Your task to perform on an android device: toggle location history Image 0: 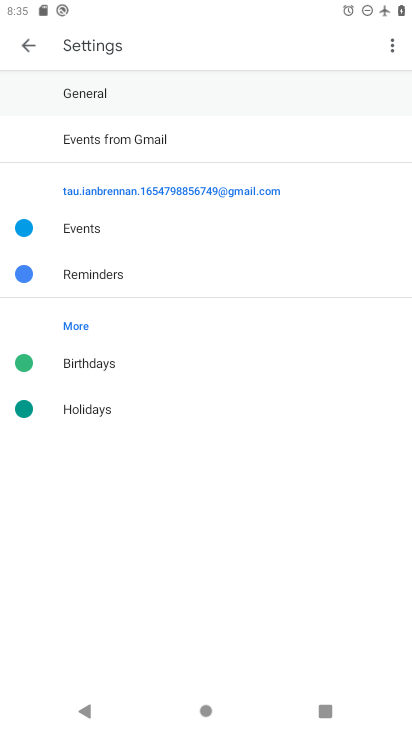
Step 0: press home button
Your task to perform on an android device: toggle location history Image 1: 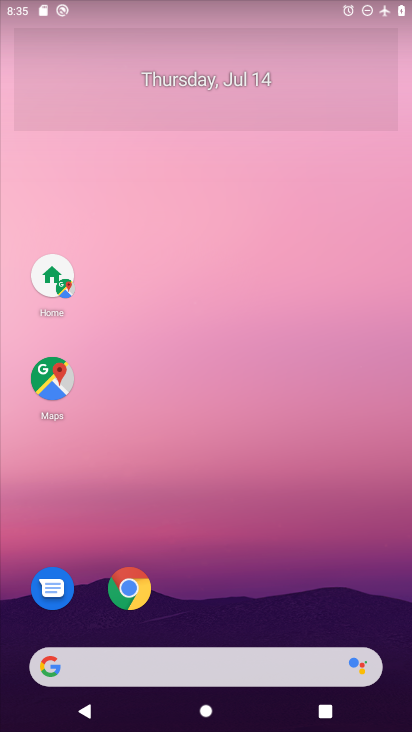
Step 1: drag from (41, 698) to (357, 196)
Your task to perform on an android device: toggle location history Image 2: 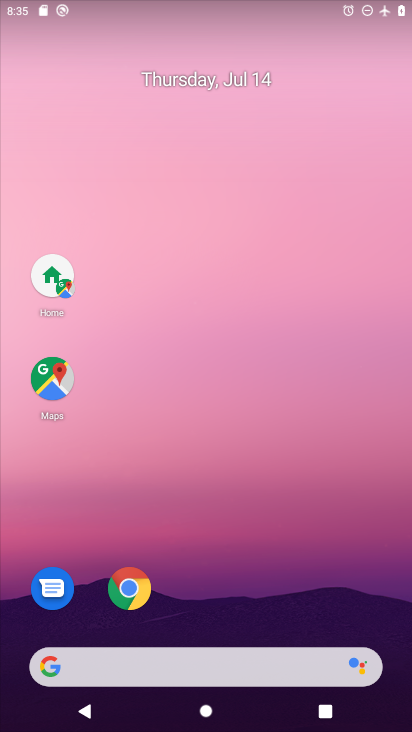
Step 2: drag from (13, 716) to (151, 14)
Your task to perform on an android device: toggle location history Image 3: 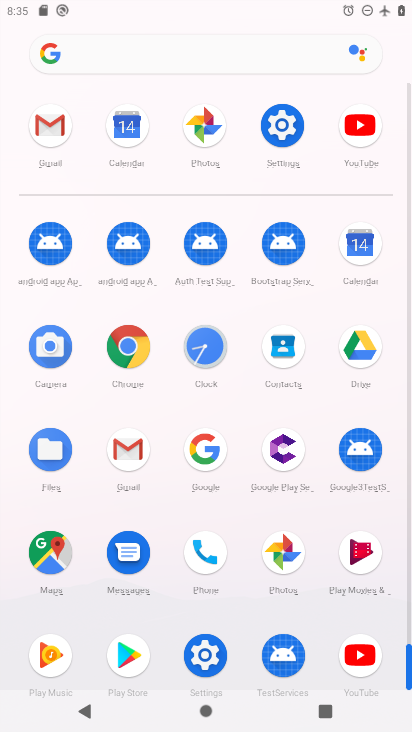
Step 3: click (217, 653)
Your task to perform on an android device: toggle location history Image 4: 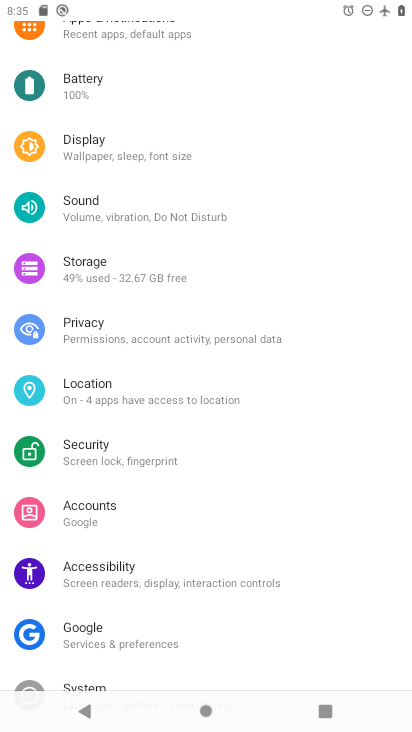
Step 4: click (108, 394)
Your task to perform on an android device: toggle location history Image 5: 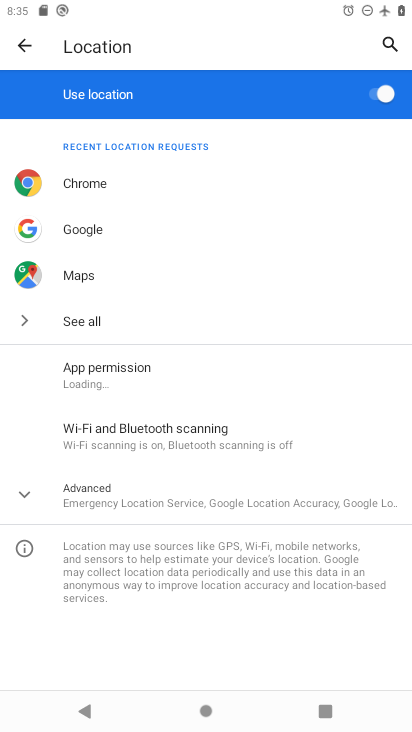
Step 5: click (99, 489)
Your task to perform on an android device: toggle location history Image 6: 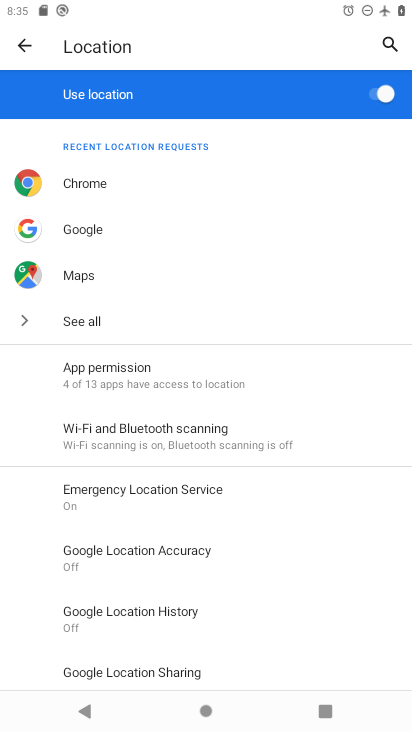
Step 6: click (164, 629)
Your task to perform on an android device: toggle location history Image 7: 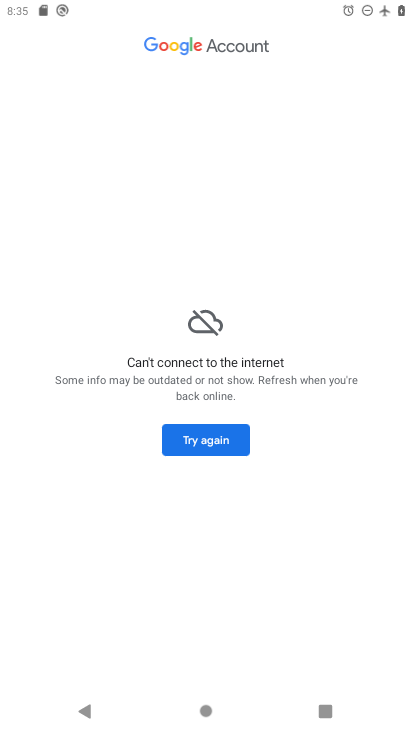
Step 7: drag from (337, 12) to (255, 535)
Your task to perform on an android device: toggle location history Image 8: 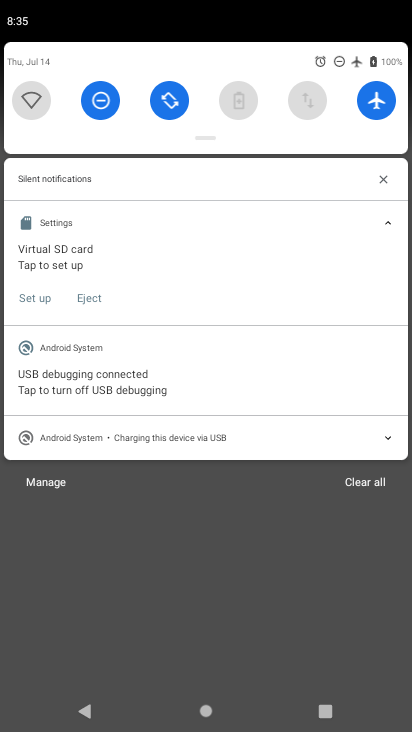
Step 8: click (376, 104)
Your task to perform on an android device: toggle location history Image 9: 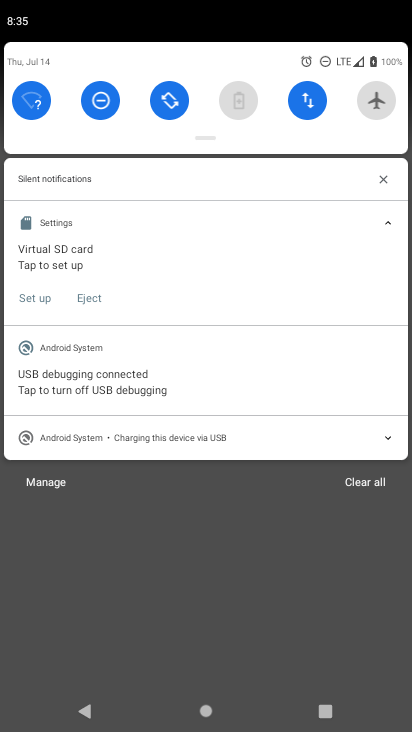
Step 9: click (310, 584)
Your task to perform on an android device: toggle location history Image 10: 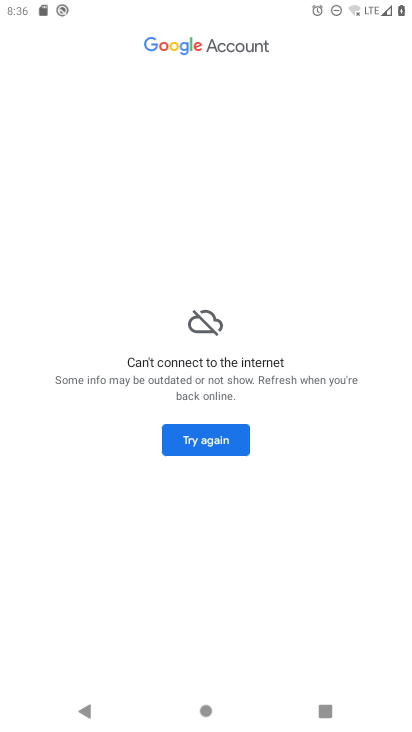
Step 10: click (217, 444)
Your task to perform on an android device: toggle location history Image 11: 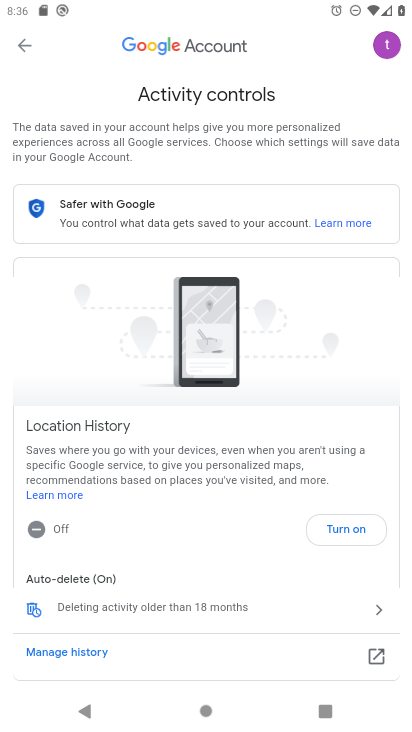
Step 11: drag from (202, 491) to (237, 245)
Your task to perform on an android device: toggle location history Image 12: 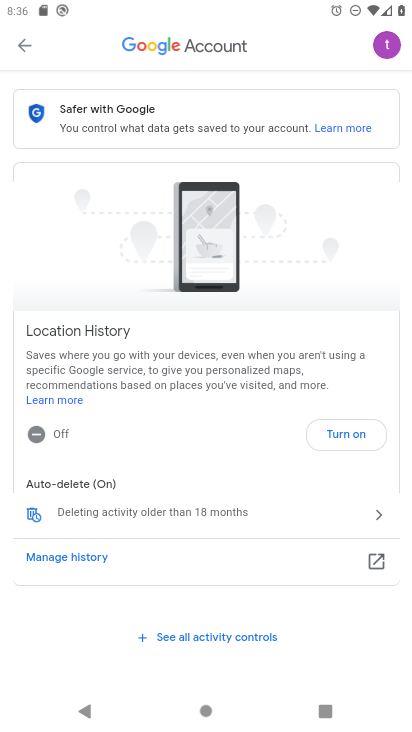
Step 12: click (351, 433)
Your task to perform on an android device: toggle location history Image 13: 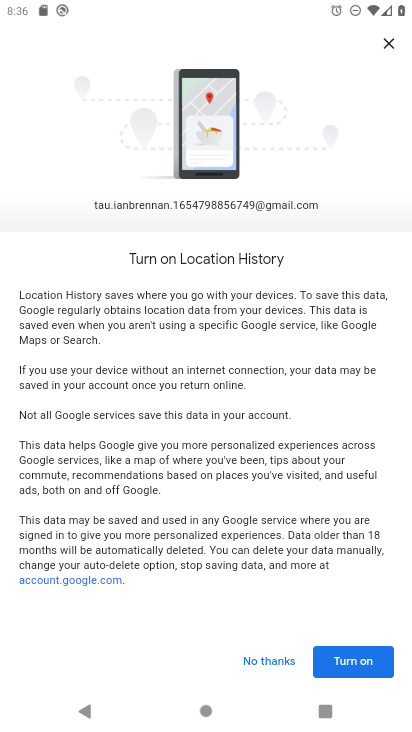
Step 13: click (359, 652)
Your task to perform on an android device: toggle location history Image 14: 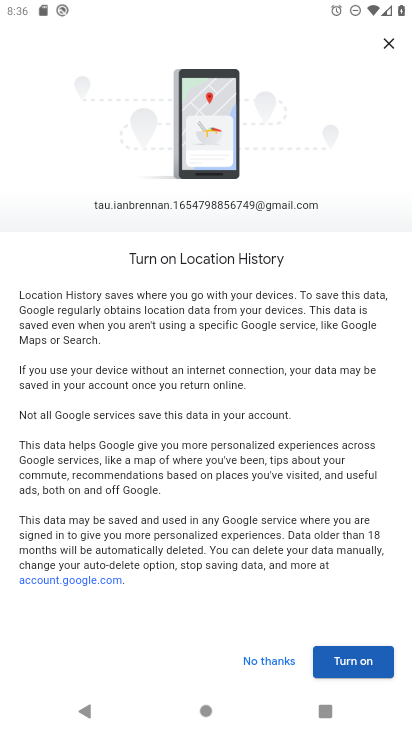
Step 14: click (338, 662)
Your task to perform on an android device: toggle location history Image 15: 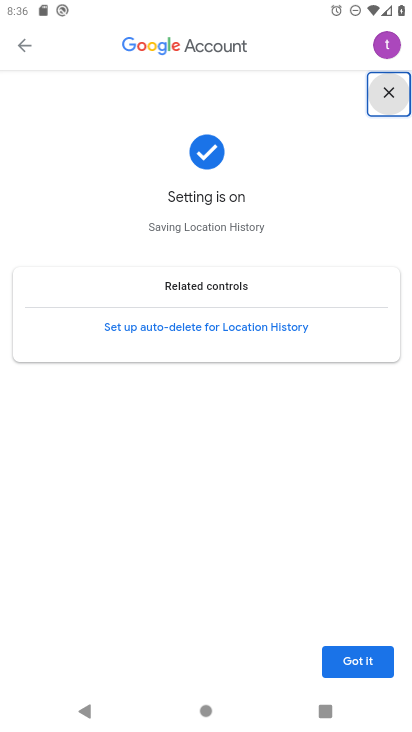
Step 15: click (370, 648)
Your task to perform on an android device: toggle location history Image 16: 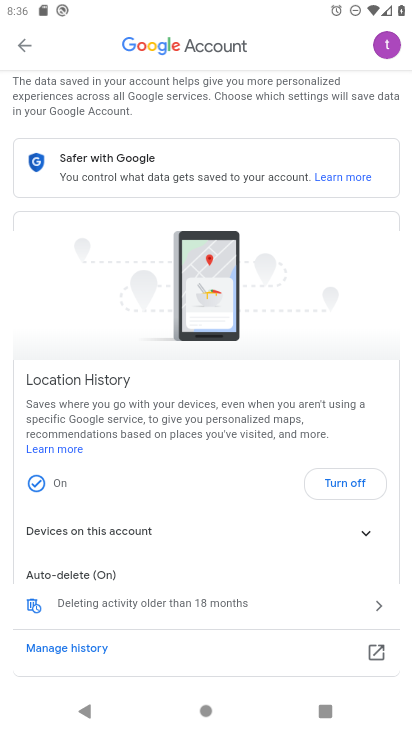
Step 16: task complete